Your task to perform on an android device: show emergency info Image 0: 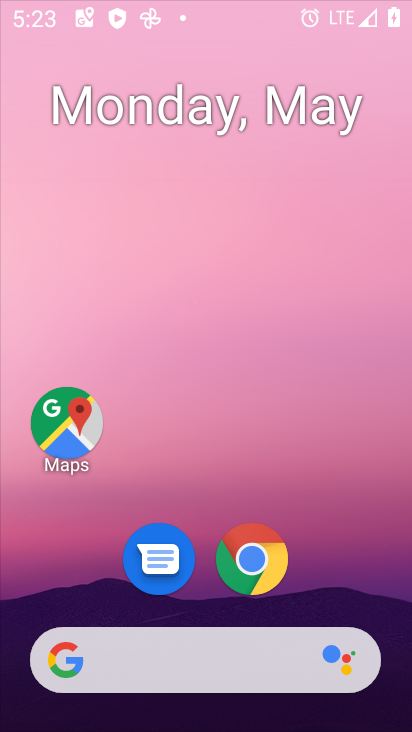
Step 0: drag from (322, 24) to (376, 1)
Your task to perform on an android device: show emergency info Image 1: 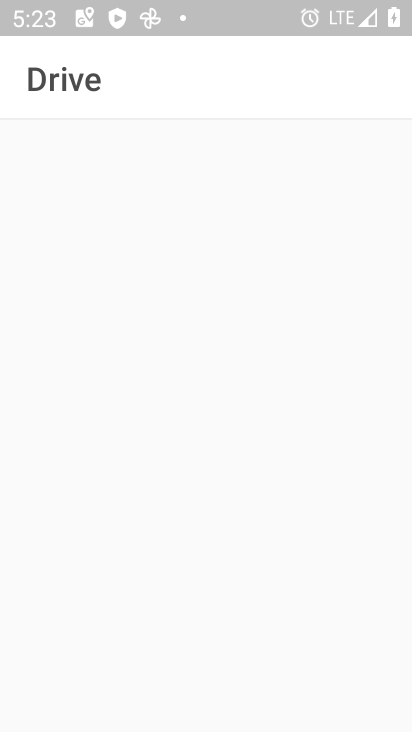
Step 1: press home button
Your task to perform on an android device: show emergency info Image 2: 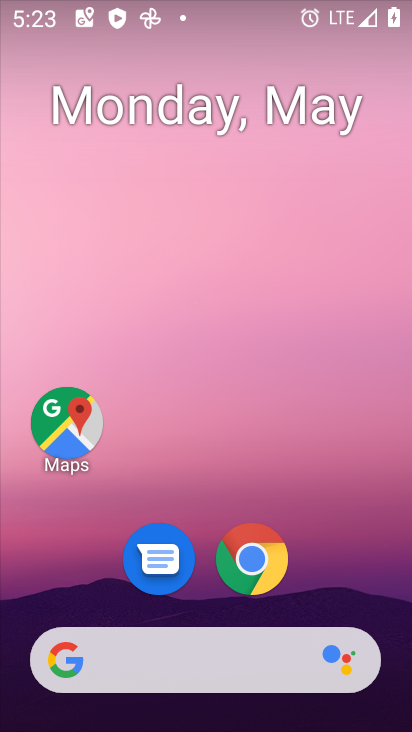
Step 2: drag from (275, 680) to (334, 0)
Your task to perform on an android device: show emergency info Image 3: 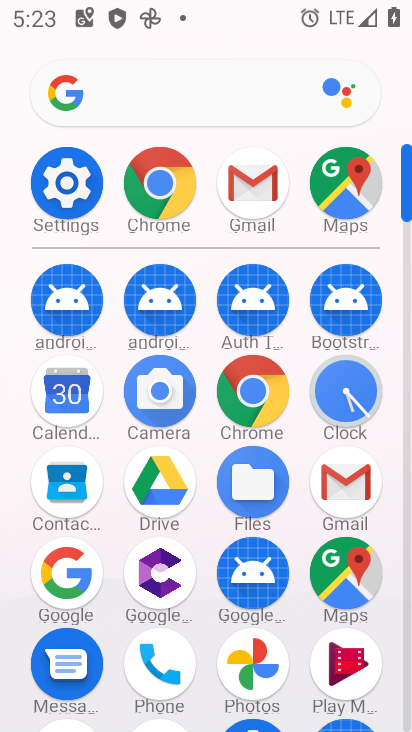
Step 3: click (88, 187)
Your task to perform on an android device: show emergency info Image 4: 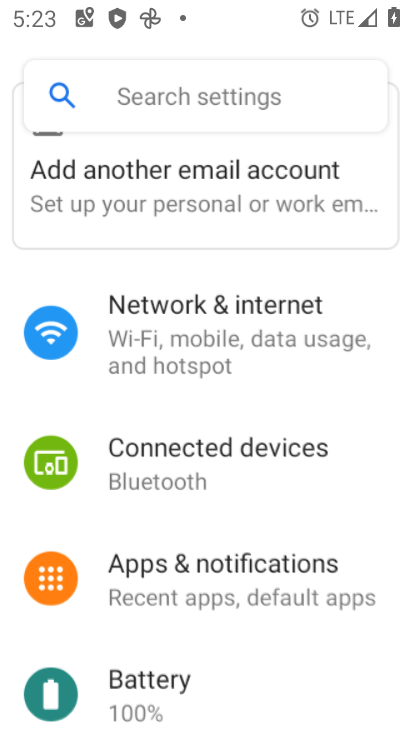
Step 4: drag from (280, 624) to (298, 64)
Your task to perform on an android device: show emergency info Image 5: 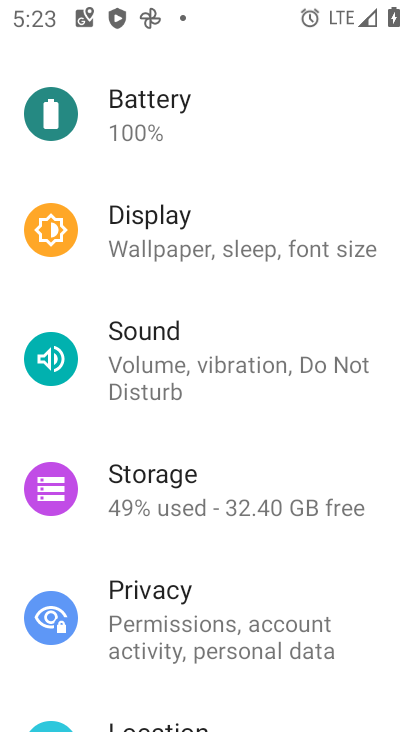
Step 5: drag from (229, 595) to (233, 48)
Your task to perform on an android device: show emergency info Image 6: 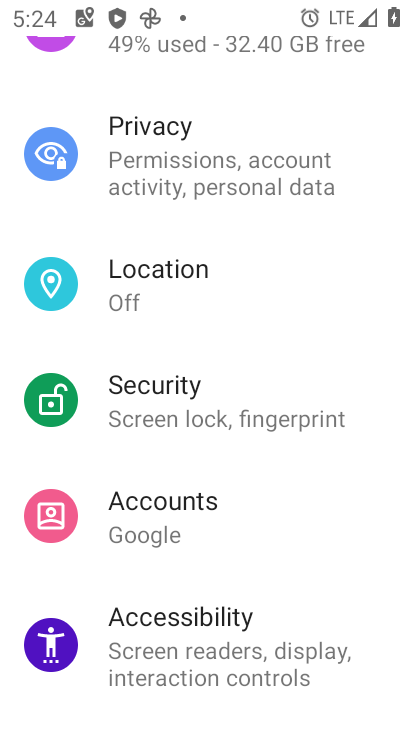
Step 6: click (269, 652)
Your task to perform on an android device: show emergency info Image 7: 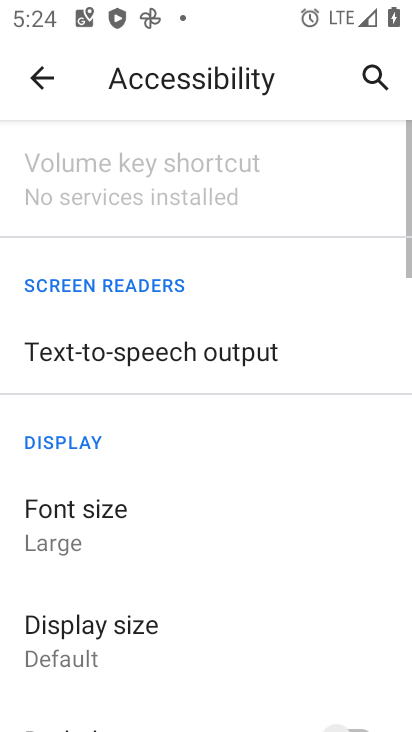
Step 7: press back button
Your task to perform on an android device: show emergency info Image 8: 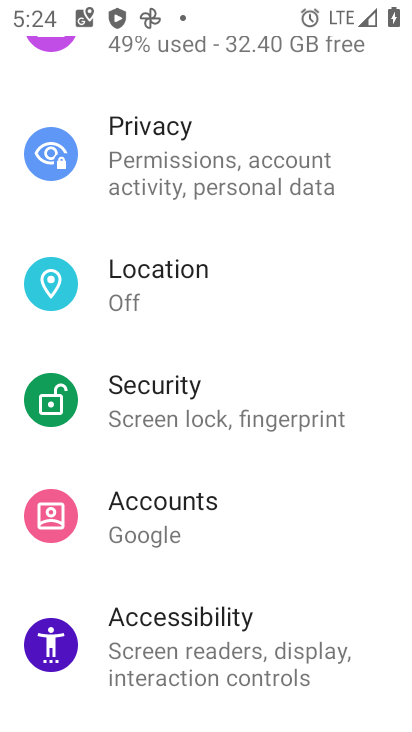
Step 8: drag from (248, 605) to (297, 129)
Your task to perform on an android device: show emergency info Image 9: 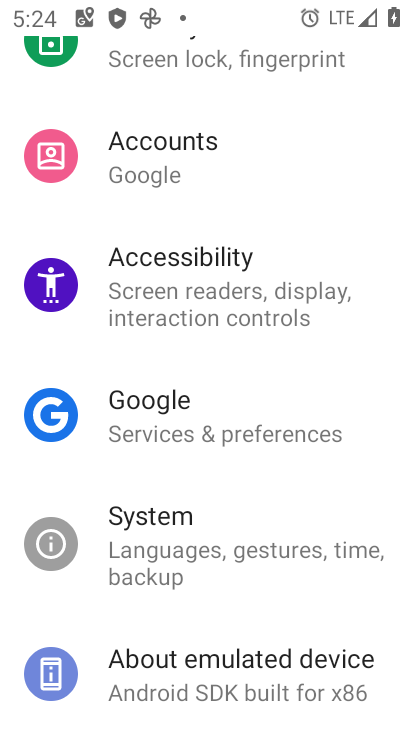
Step 9: click (313, 673)
Your task to perform on an android device: show emergency info Image 10: 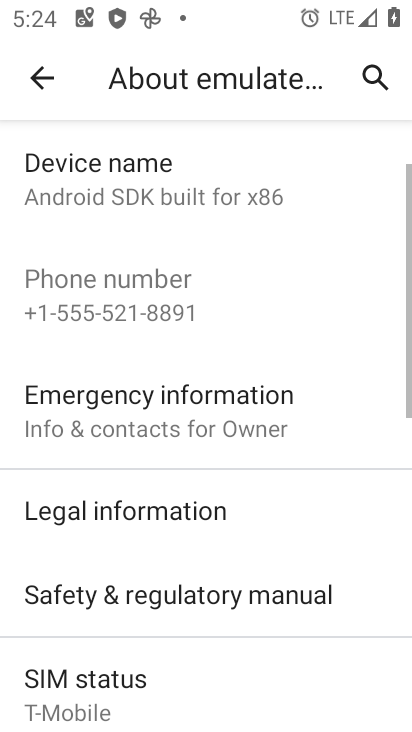
Step 10: click (211, 404)
Your task to perform on an android device: show emergency info Image 11: 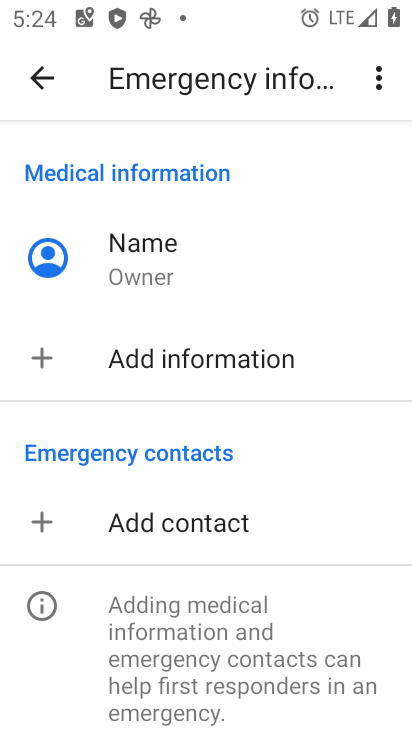
Step 11: task complete